Your task to perform on an android device: Open Maps and search for coffee Image 0: 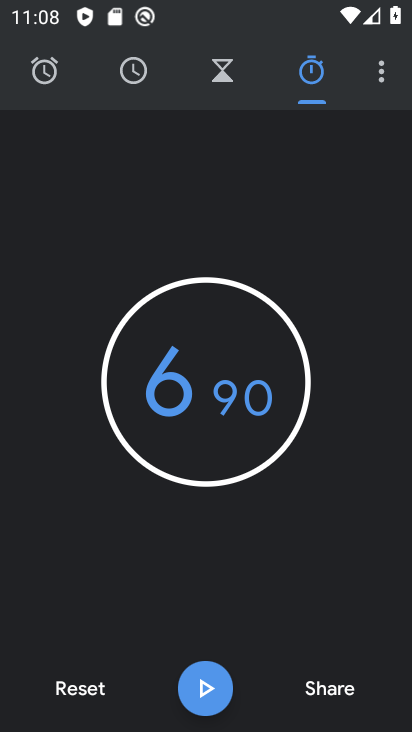
Step 0: press back button
Your task to perform on an android device: Open Maps and search for coffee Image 1: 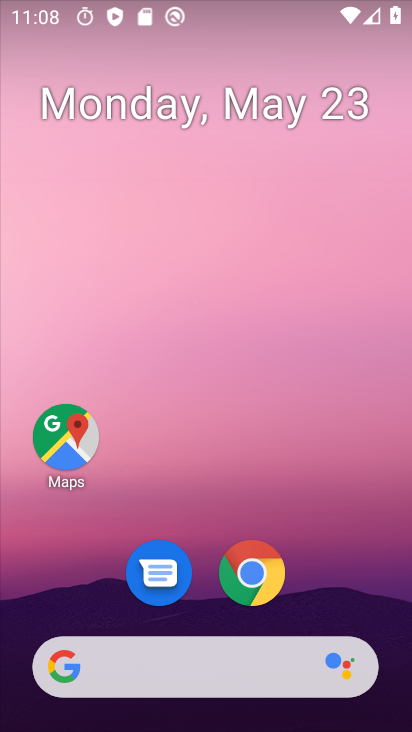
Step 1: click (65, 440)
Your task to perform on an android device: Open Maps and search for coffee Image 2: 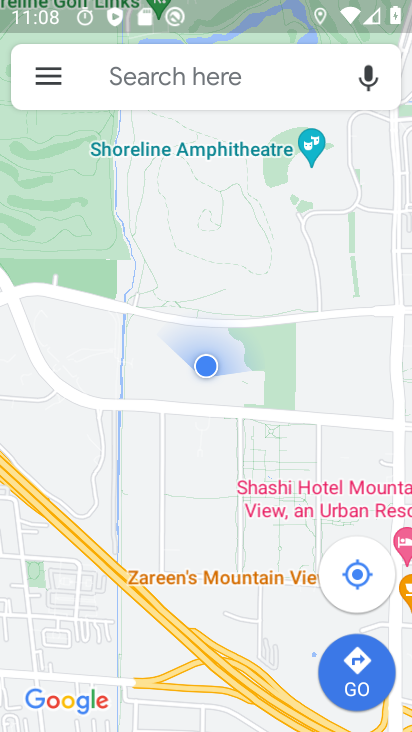
Step 2: click (197, 74)
Your task to perform on an android device: Open Maps and search for coffee Image 3: 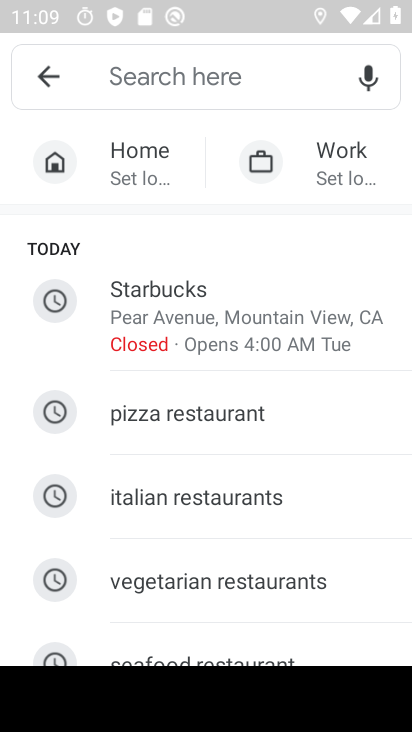
Step 3: type "coffee"
Your task to perform on an android device: Open Maps and search for coffee Image 4: 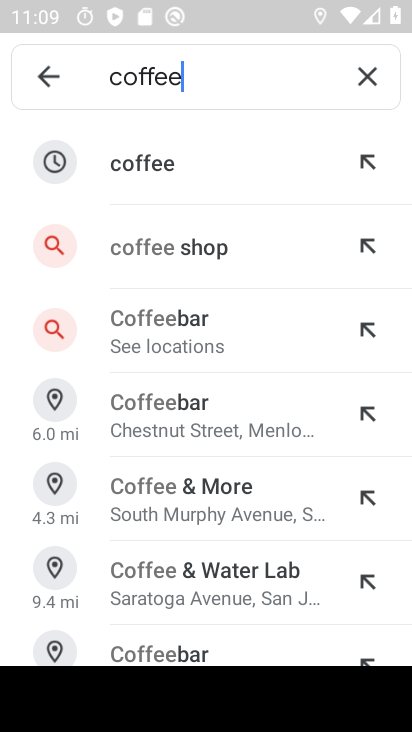
Step 4: click (158, 162)
Your task to perform on an android device: Open Maps and search for coffee Image 5: 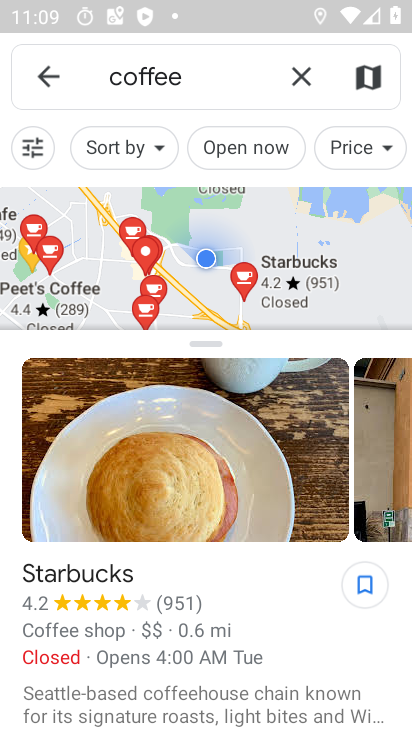
Step 5: task complete